Your task to perform on an android device: delete the emails in spam in the gmail app Image 0: 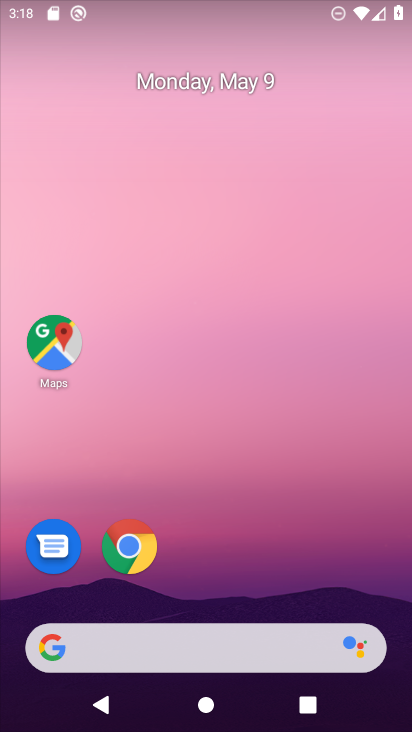
Step 0: drag from (224, 524) to (296, 73)
Your task to perform on an android device: delete the emails in spam in the gmail app Image 1: 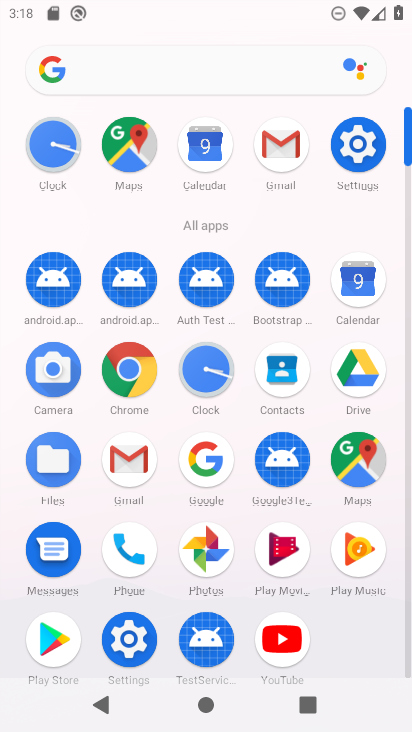
Step 1: click (288, 123)
Your task to perform on an android device: delete the emails in spam in the gmail app Image 2: 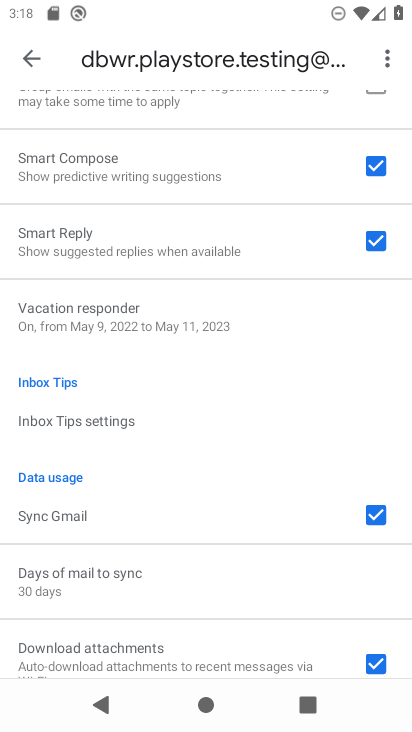
Step 2: click (24, 59)
Your task to perform on an android device: delete the emails in spam in the gmail app Image 3: 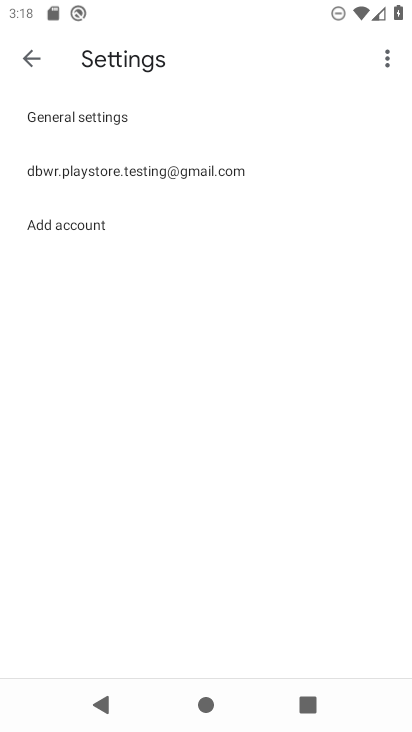
Step 3: click (33, 66)
Your task to perform on an android device: delete the emails in spam in the gmail app Image 4: 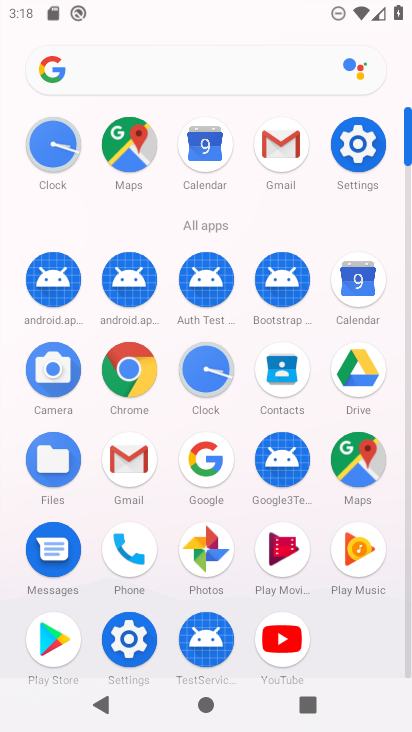
Step 4: click (297, 156)
Your task to perform on an android device: delete the emails in spam in the gmail app Image 5: 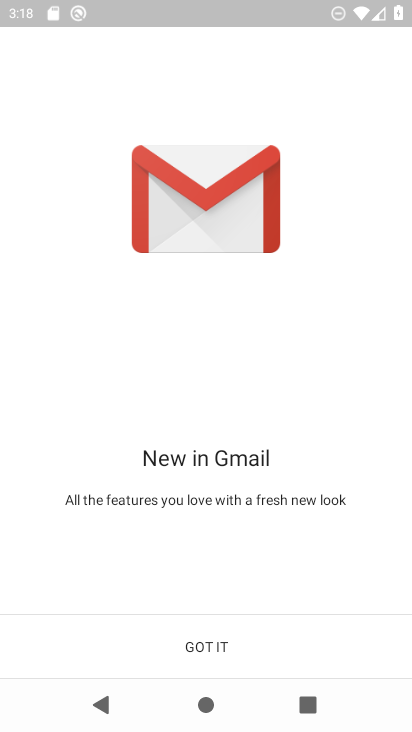
Step 5: click (196, 654)
Your task to perform on an android device: delete the emails in spam in the gmail app Image 6: 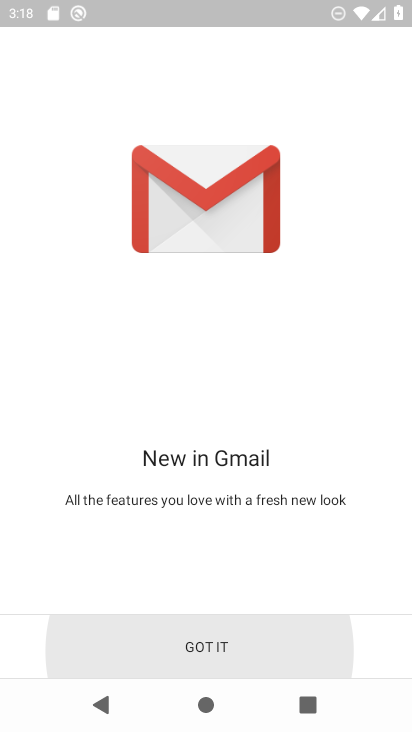
Step 6: click (196, 654)
Your task to perform on an android device: delete the emails in spam in the gmail app Image 7: 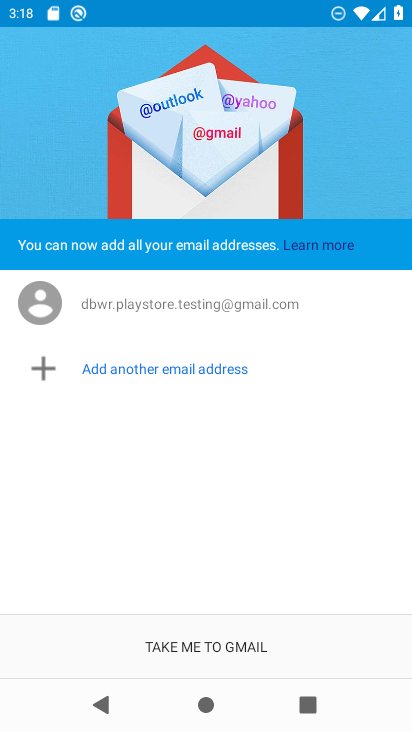
Step 7: click (196, 654)
Your task to perform on an android device: delete the emails in spam in the gmail app Image 8: 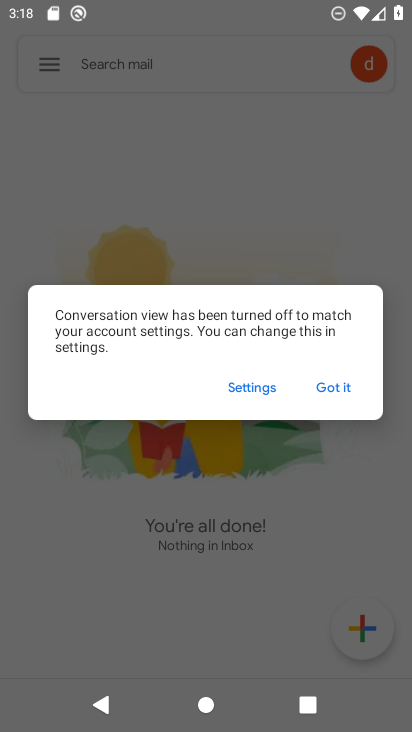
Step 8: click (331, 390)
Your task to perform on an android device: delete the emails in spam in the gmail app Image 9: 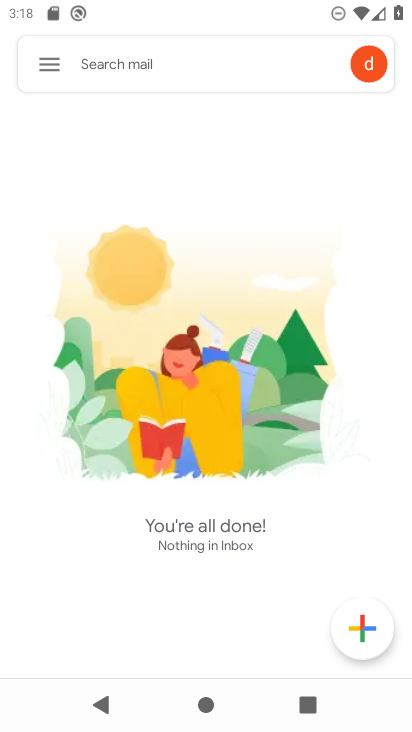
Step 9: click (52, 79)
Your task to perform on an android device: delete the emails in spam in the gmail app Image 10: 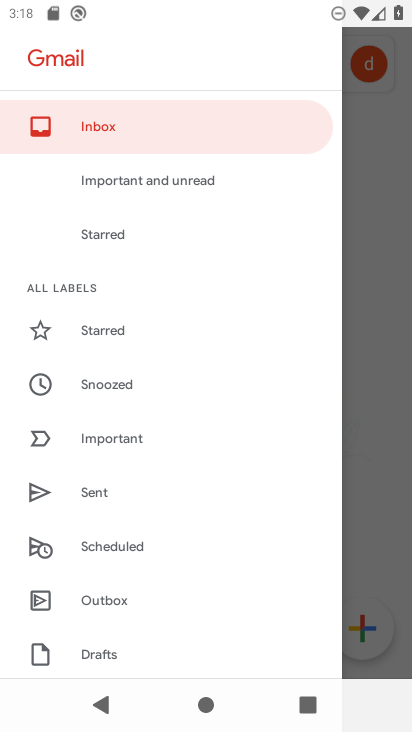
Step 10: drag from (109, 604) to (153, 224)
Your task to perform on an android device: delete the emails in spam in the gmail app Image 11: 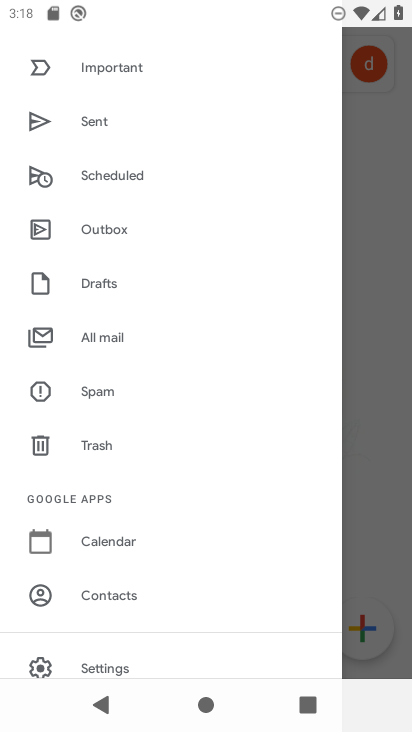
Step 11: click (122, 396)
Your task to perform on an android device: delete the emails in spam in the gmail app Image 12: 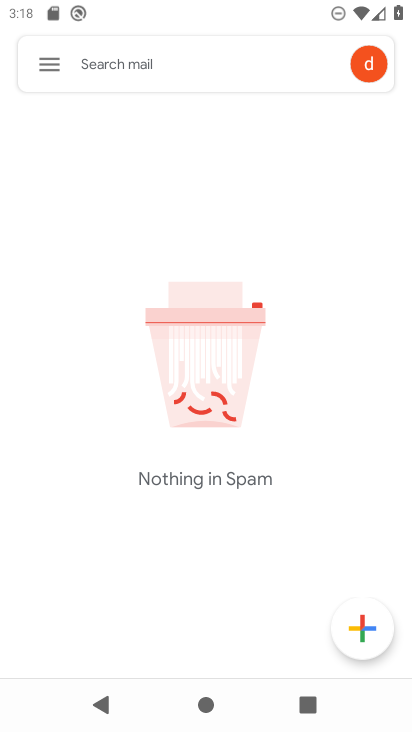
Step 12: task complete